Your task to perform on an android device: Open settings Image 0: 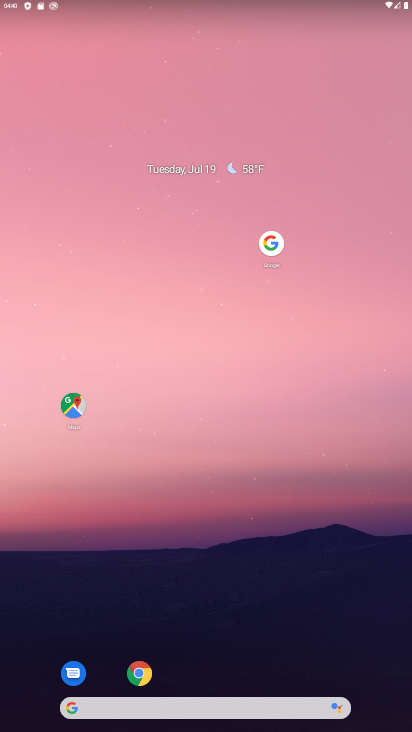
Step 0: press home button
Your task to perform on an android device: Open settings Image 1: 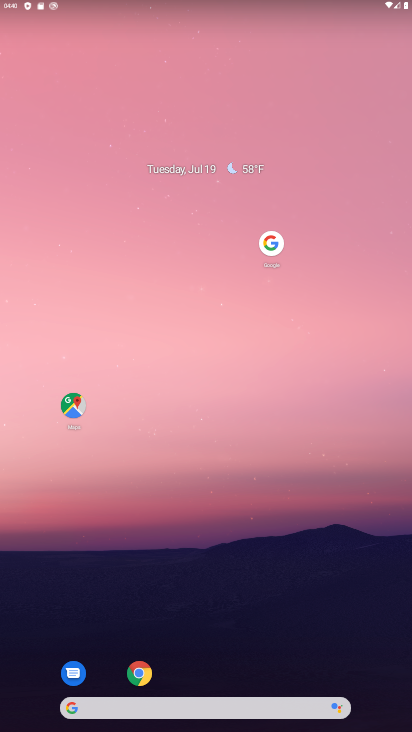
Step 1: drag from (215, 489) to (184, 122)
Your task to perform on an android device: Open settings Image 2: 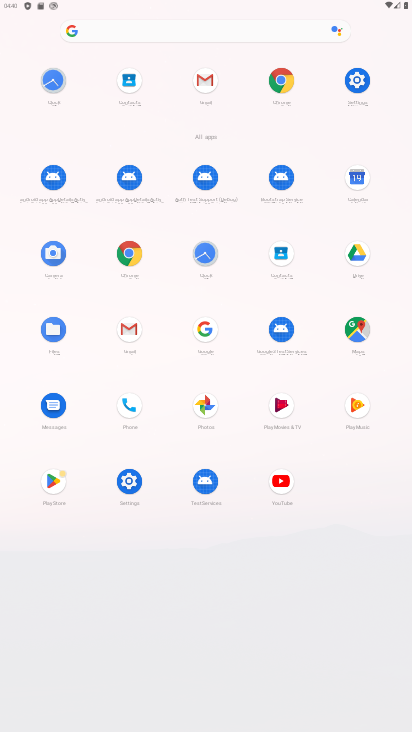
Step 2: click (360, 77)
Your task to perform on an android device: Open settings Image 3: 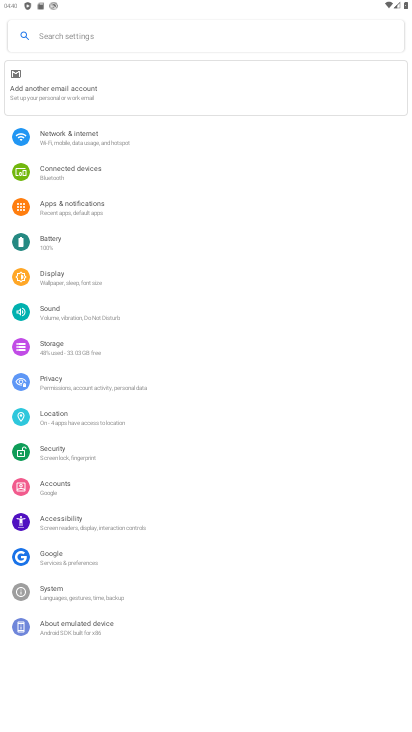
Step 3: task complete